Your task to perform on an android device: open app "Life360: Find Family & Friends" Image 0: 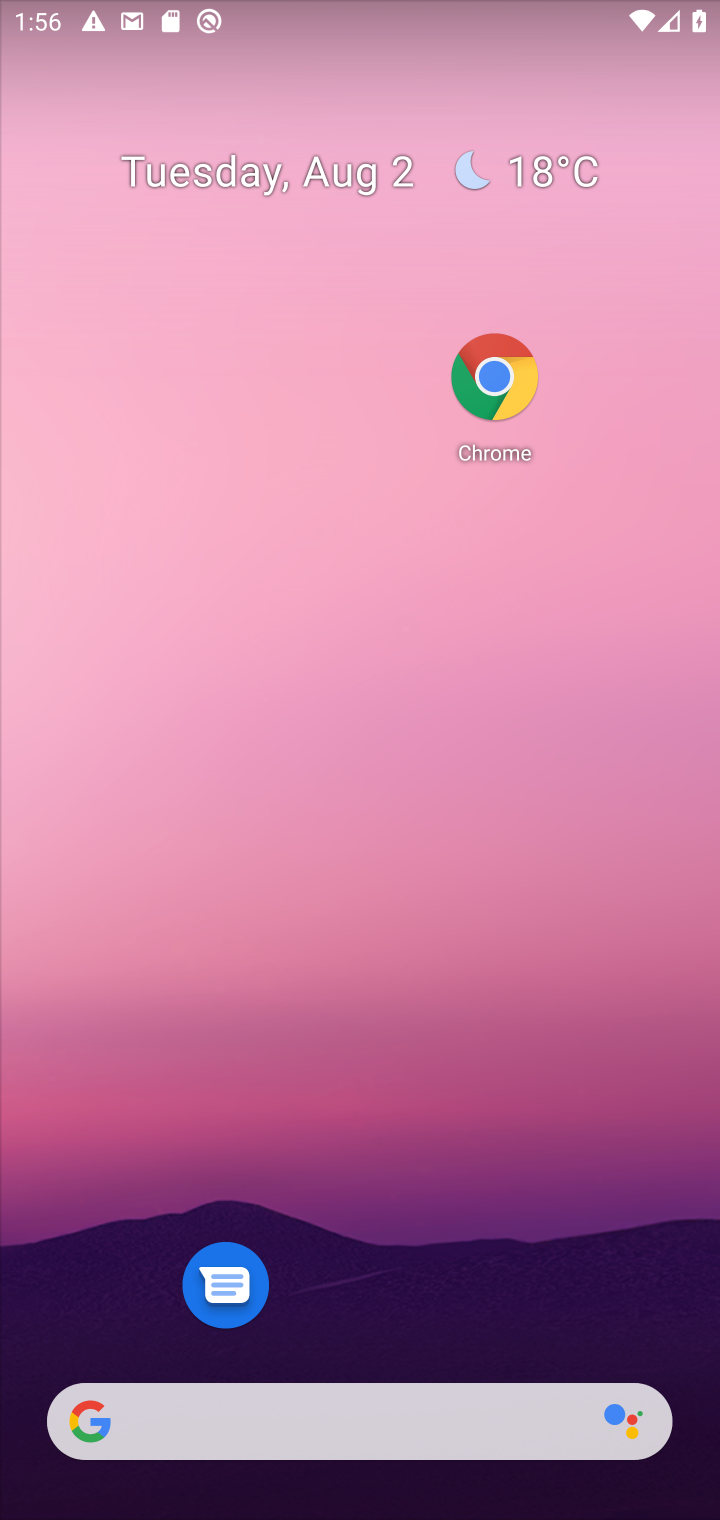
Step 0: press home button
Your task to perform on an android device: open app "Life360: Find Family & Friends" Image 1: 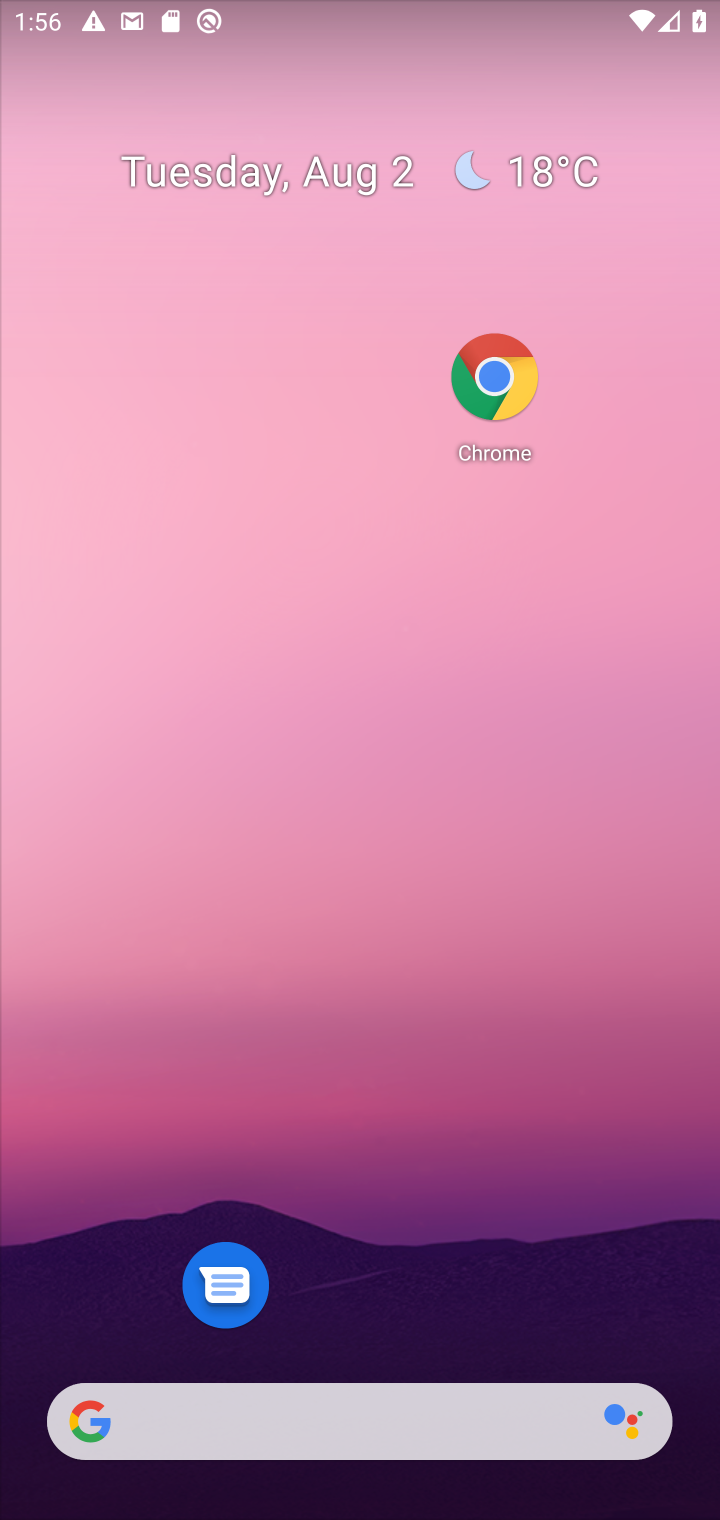
Step 1: drag from (488, 1313) to (544, 347)
Your task to perform on an android device: open app "Life360: Find Family & Friends" Image 2: 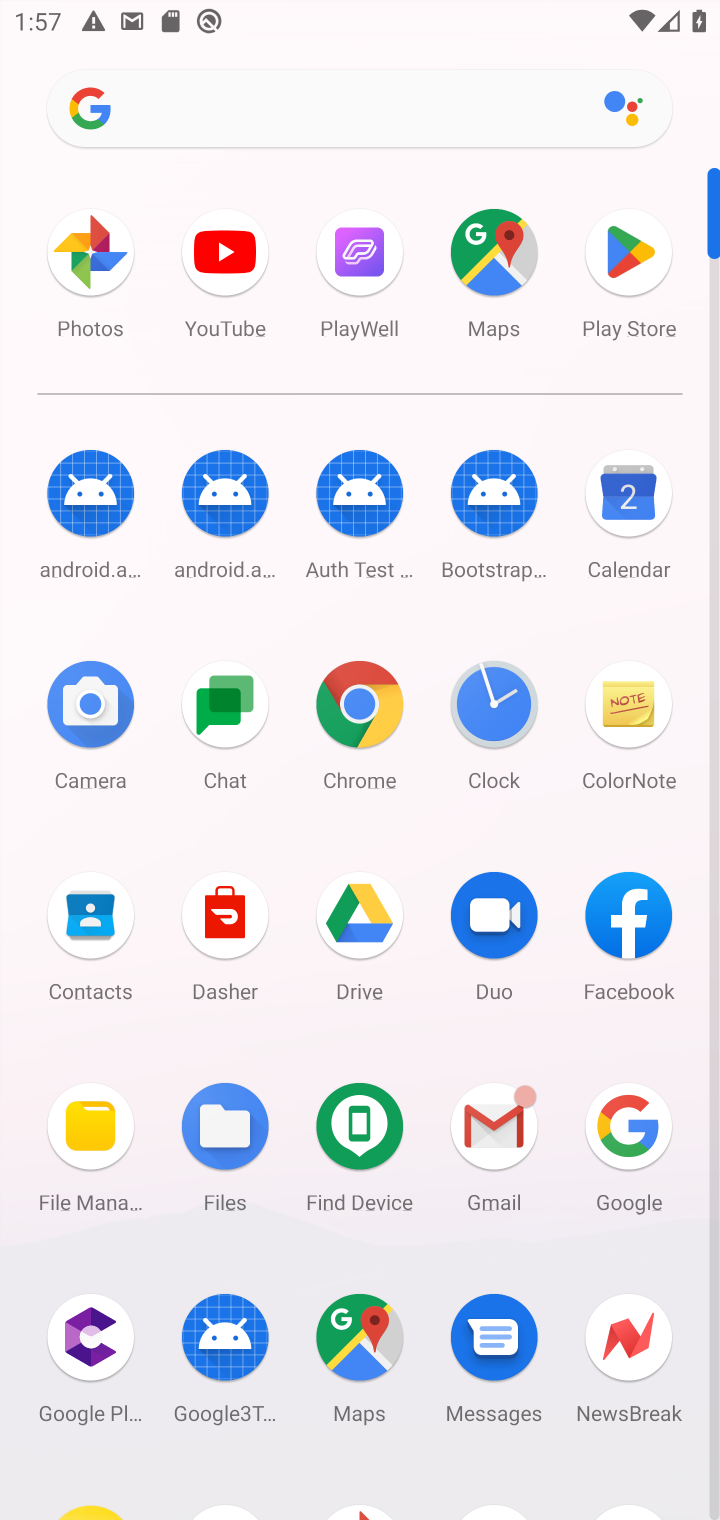
Step 2: click (643, 270)
Your task to perform on an android device: open app "Life360: Find Family & Friends" Image 3: 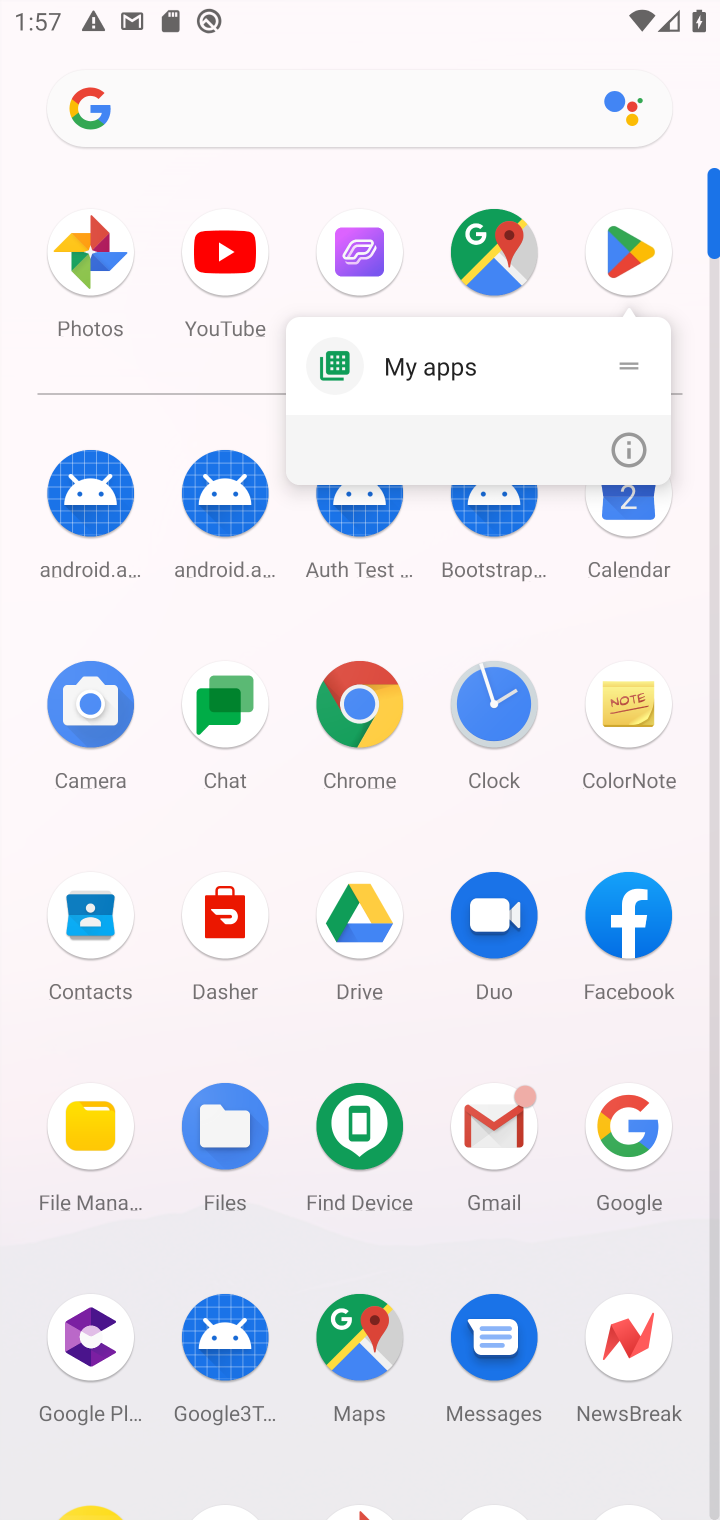
Step 3: click (643, 270)
Your task to perform on an android device: open app "Life360: Find Family & Friends" Image 4: 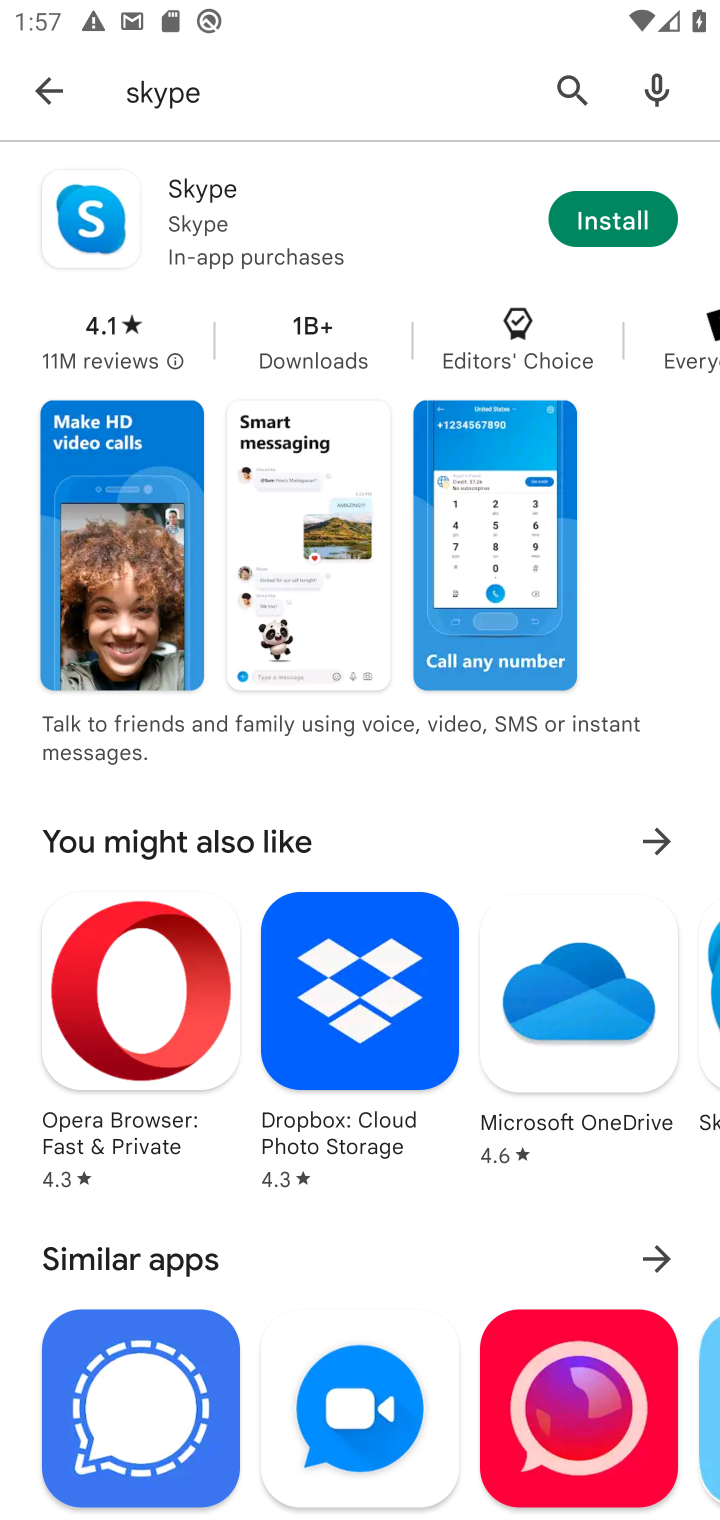
Step 4: click (559, 98)
Your task to perform on an android device: open app "Life360: Find Family & Friends" Image 5: 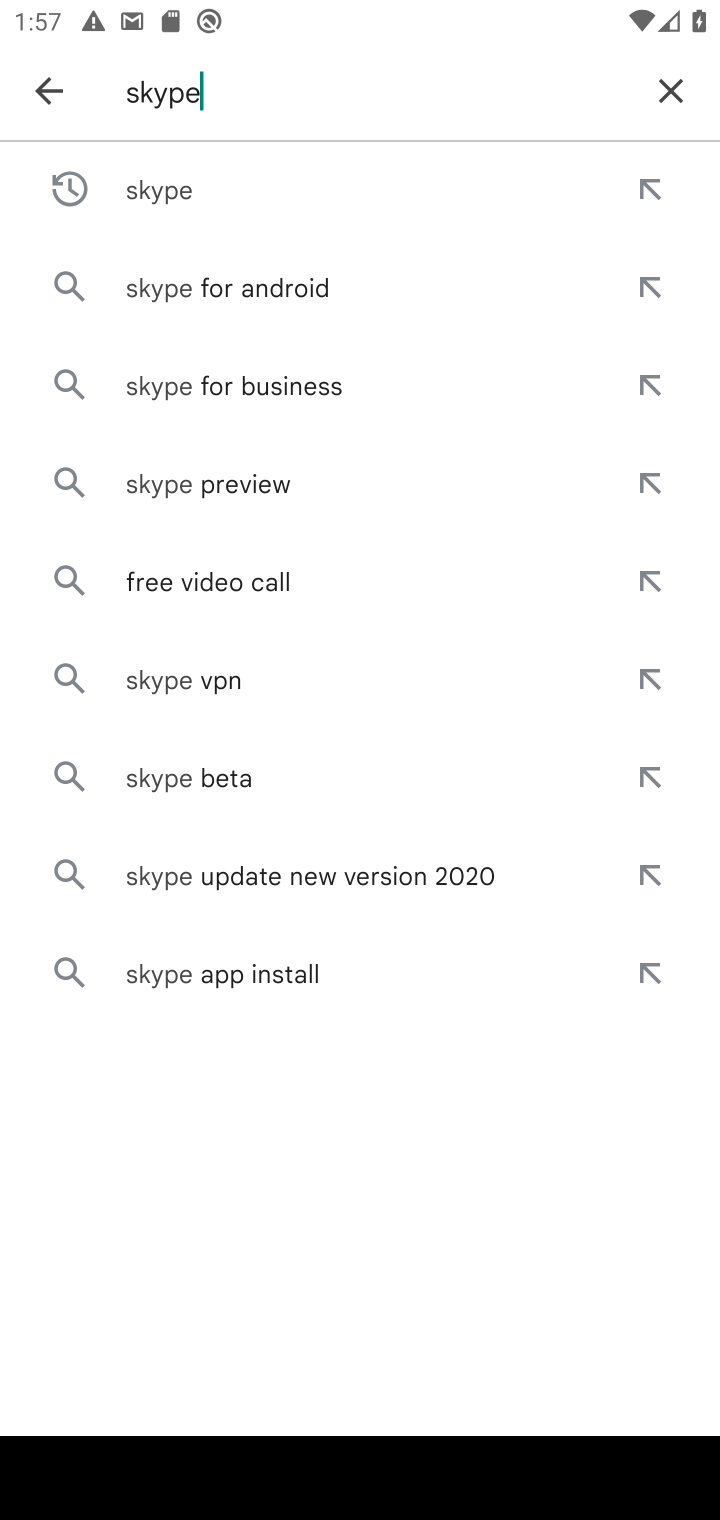
Step 5: click (659, 105)
Your task to perform on an android device: open app "Life360: Find Family & Friends" Image 6: 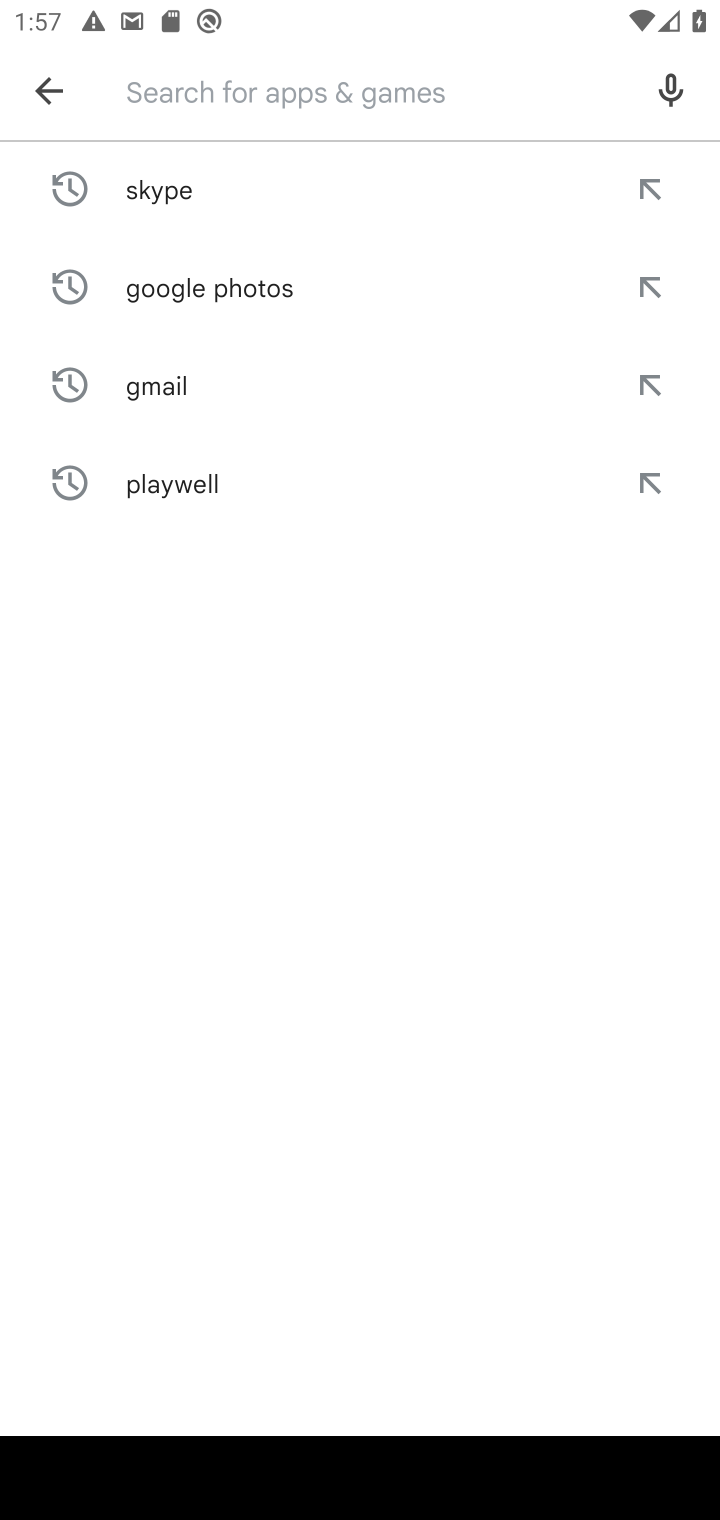
Step 6: type "Life360"
Your task to perform on an android device: open app "Life360: Find Family & Friends" Image 7: 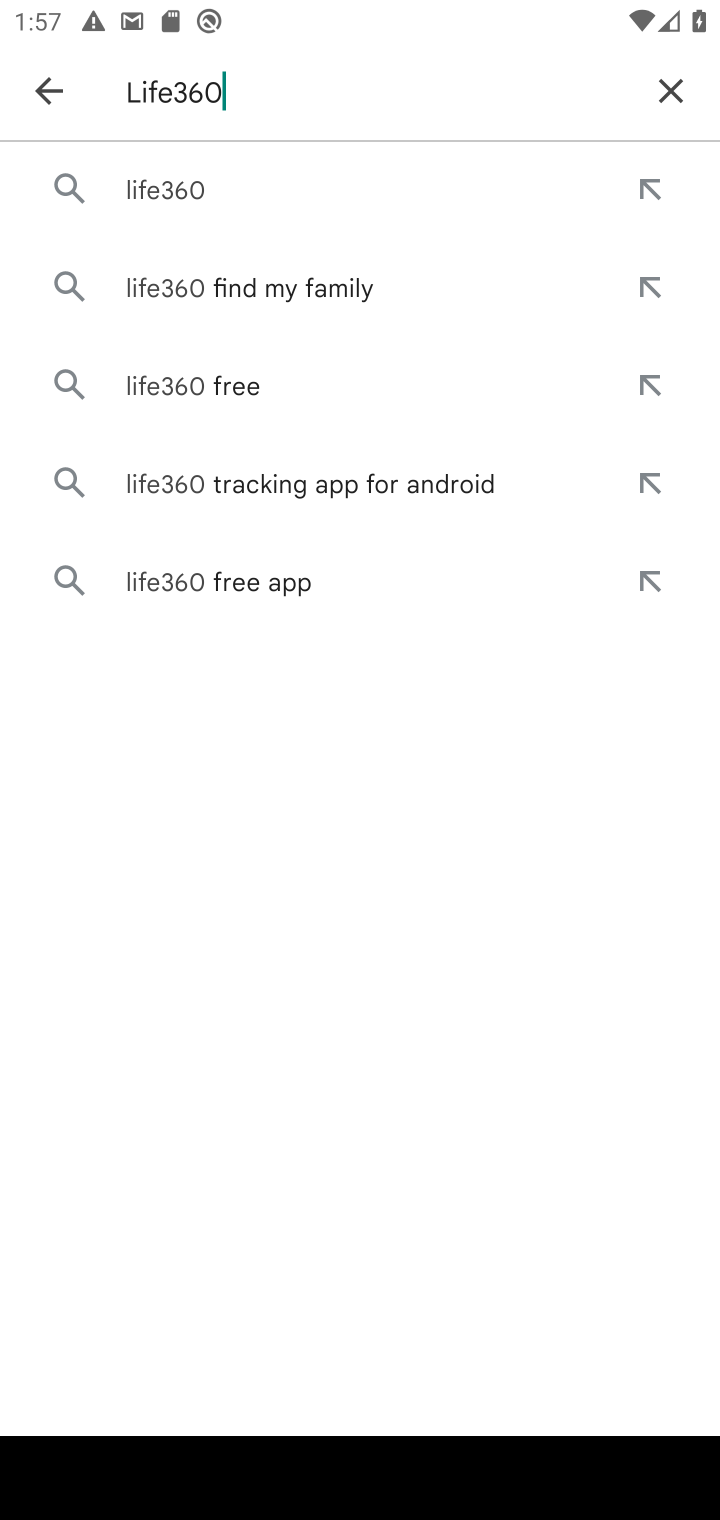
Step 7: click (167, 206)
Your task to perform on an android device: open app "Life360: Find Family & Friends" Image 8: 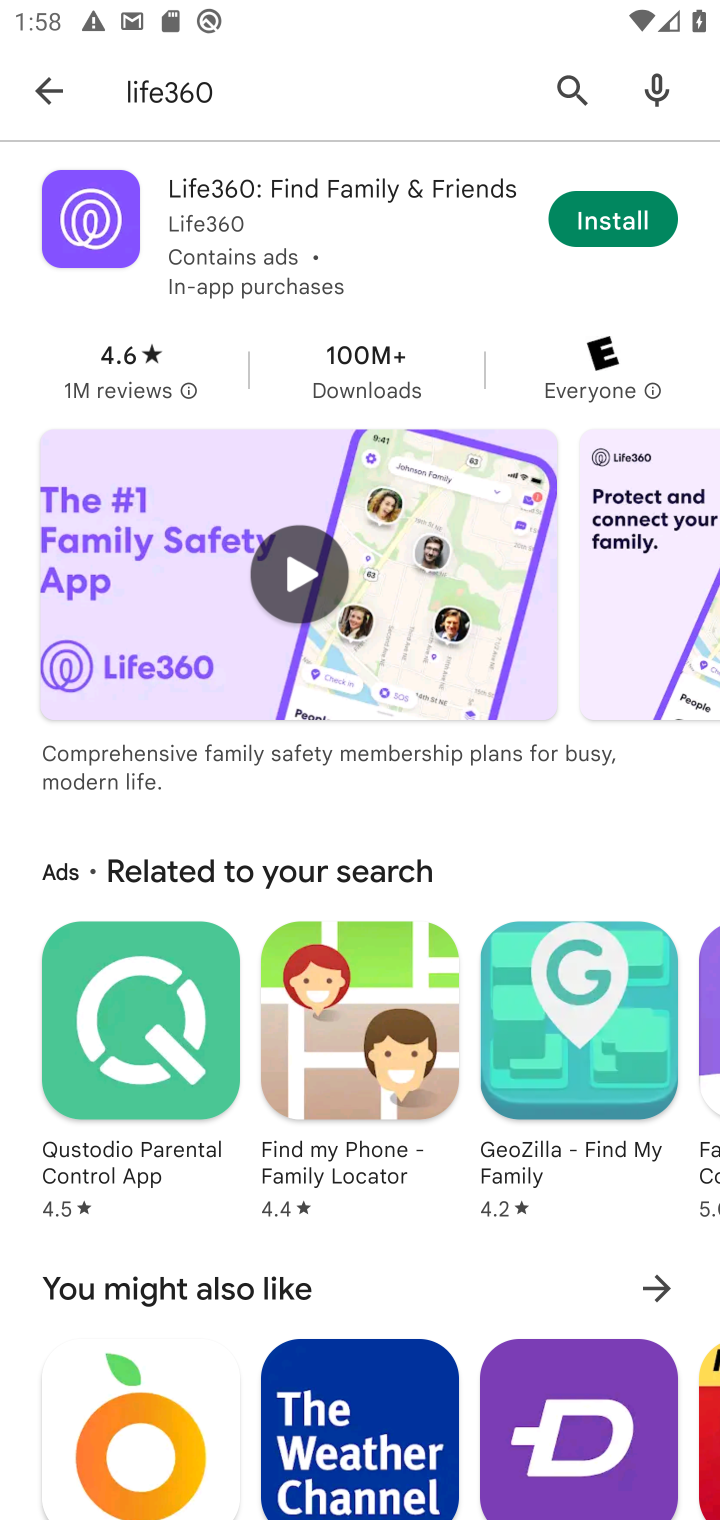
Step 8: task complete